Your task to perform on an android device: open app "Duolingo: language lessons" (install if not already installed) and go to login screen Image 0: 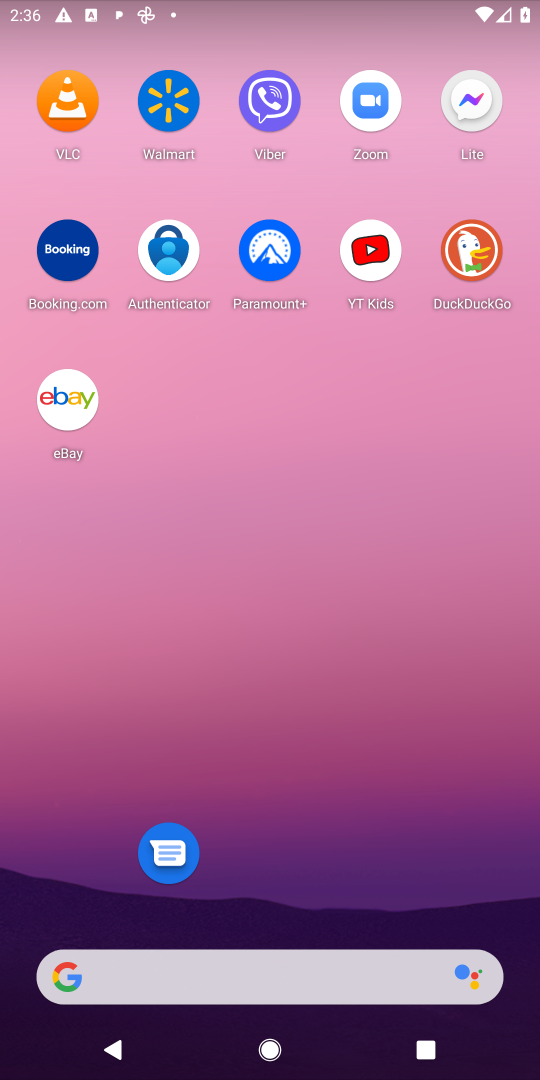
Step 0: drag from (291, 885) to (285, 213)
Your task to perform on an android device: open app "Duolingo: language lessons" (install if not already installed) and go to login screen Image 1: 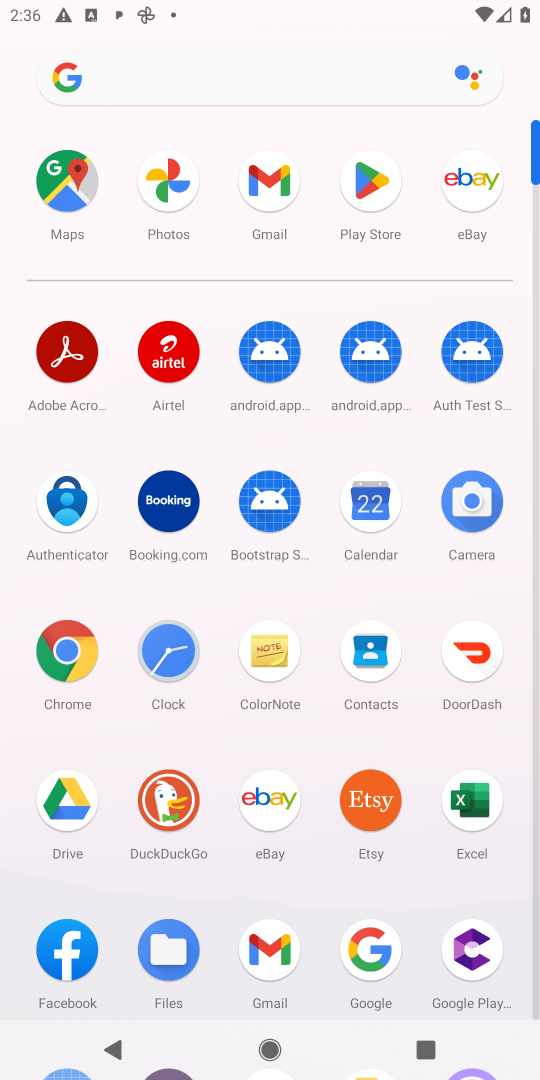
Step 1: click (364, 188)
Your task to perform on an android device: open app "Duolingo: language lessons" (install if not already installed) and go to login screen Image 2: 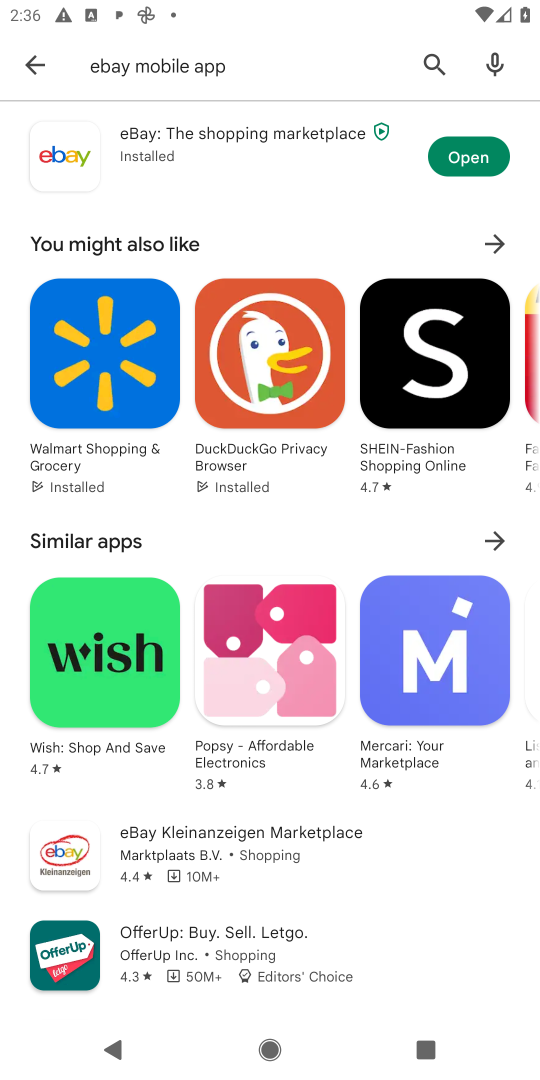
Step 2: click (48, 50)
Your task to perform on an android device: open app "Duolingo: language lessons" (install if not already installed) and go to login screen Image 3: 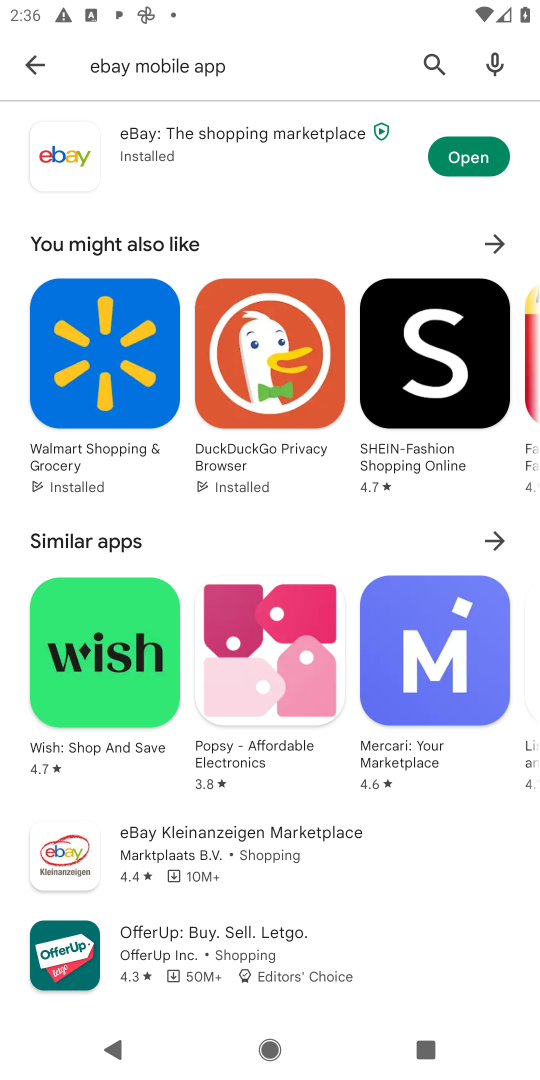
Step 3: click (12, 49)
Your task to perform on an android device: open app "Duolingo: language lessons" (install if not already installed) and go to login screen Image 4: 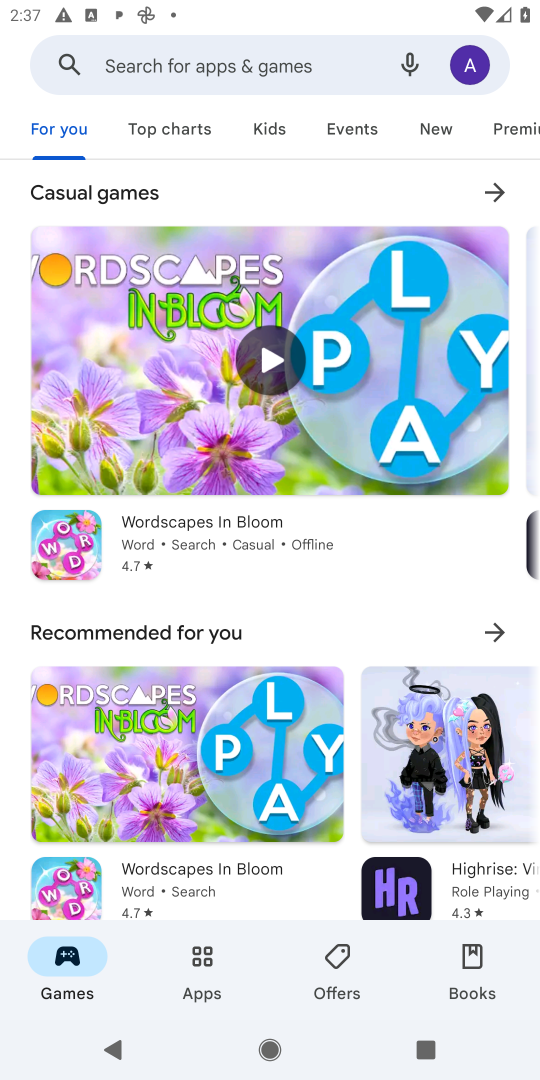
Step 4: click (208, 51)
Your task to perform on an android device: open app "Duolingo: language lessons" (install if not already installed) and go to login screen Image 5: 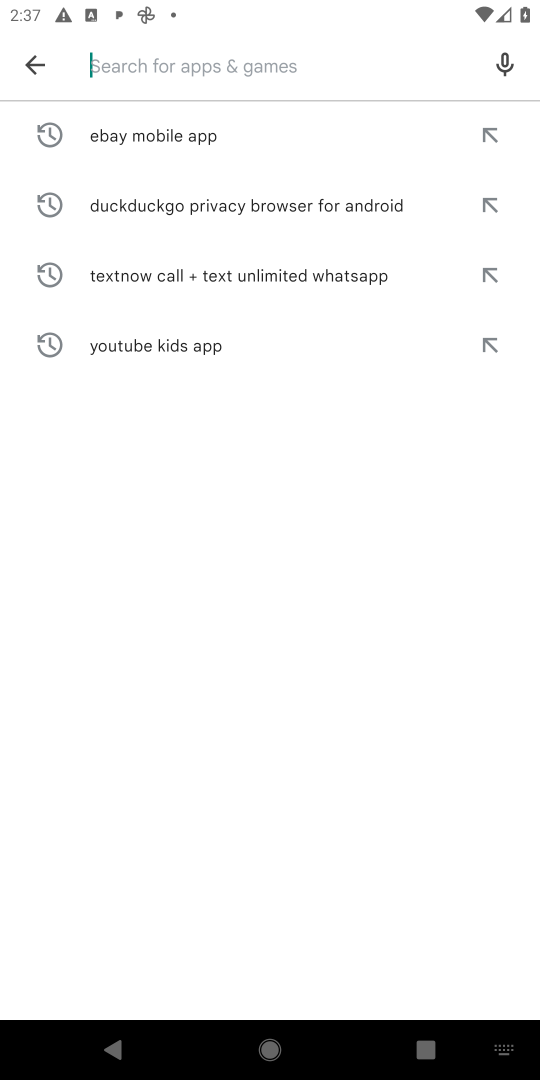
Step 5: type "Duolingo: language lessons "
Your task to perform on an android device: open app "Duolingo: language lessons" (install if not already installed) and go to login screen Image 6: 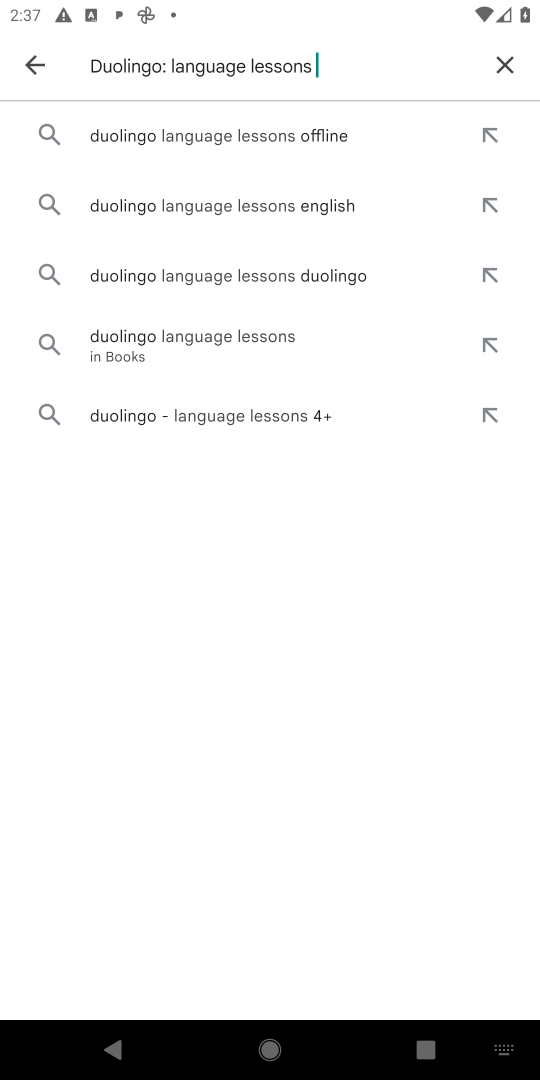
Step 6: click (262, 137)
Your task to perform on an android device: open app "Duolingo: language lessons" (install if not already installed) and go to login screen Image 7: 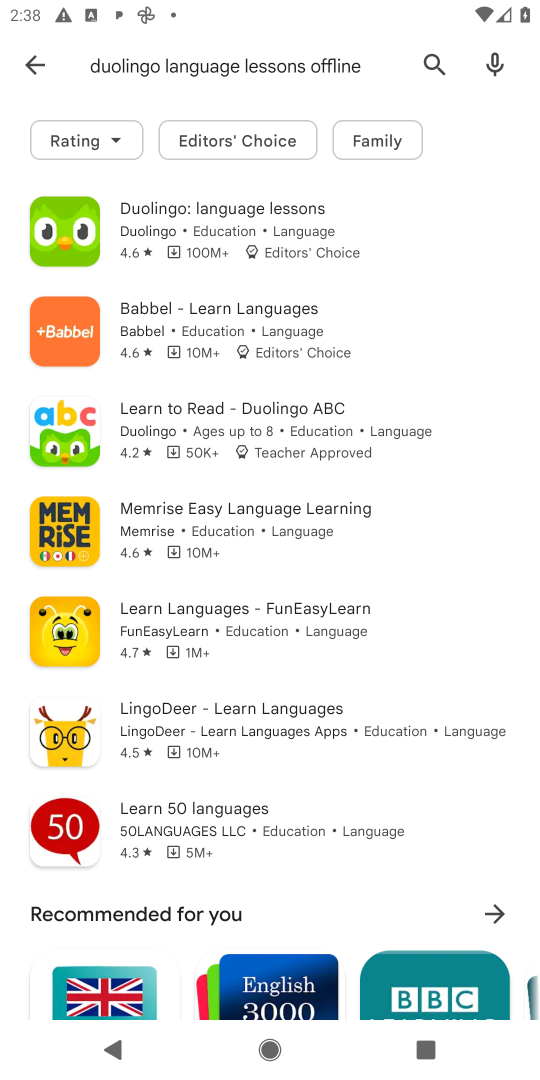
Step 7: click (194, 206)
Your task to perform on an android device: open app "Duolingo: language lessons" (install if not already installed) and go to login screen Image 8: 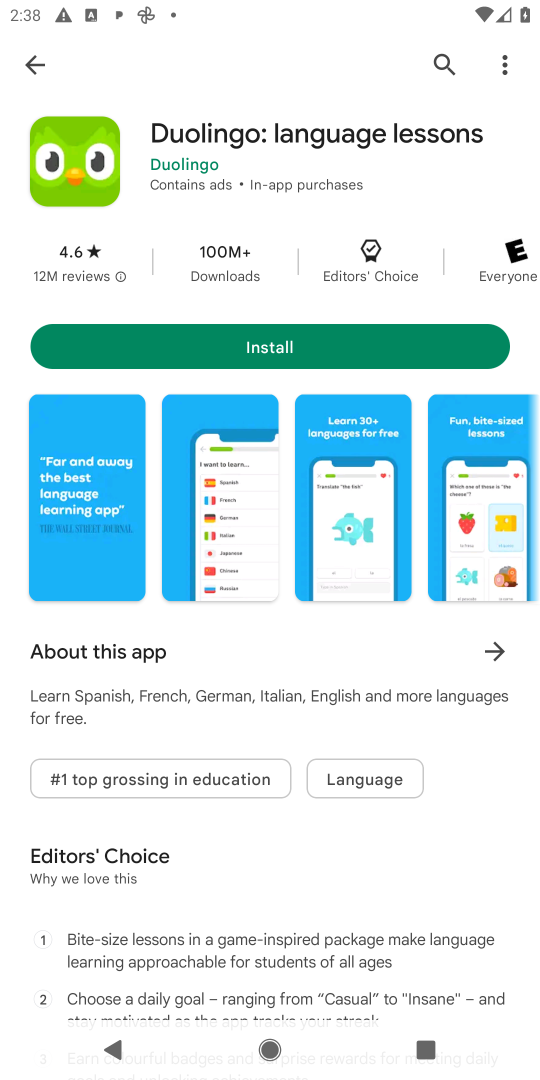
Step 8: click (215, 338)
Your task to perform on an android device: open app "Duolingo: language lessons" (install if not already installed) and go to login screen Image 9: 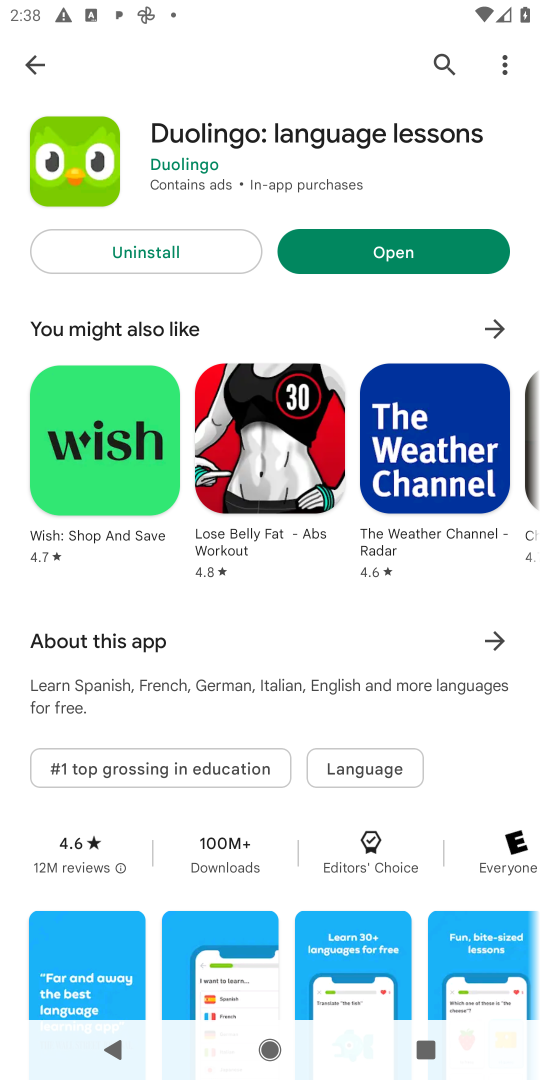
Step 9: click (399, 256)
Your task to perform on an android device: open app "Duolingo: language lessons" (install if not already installed) and go to login screen Image 10: 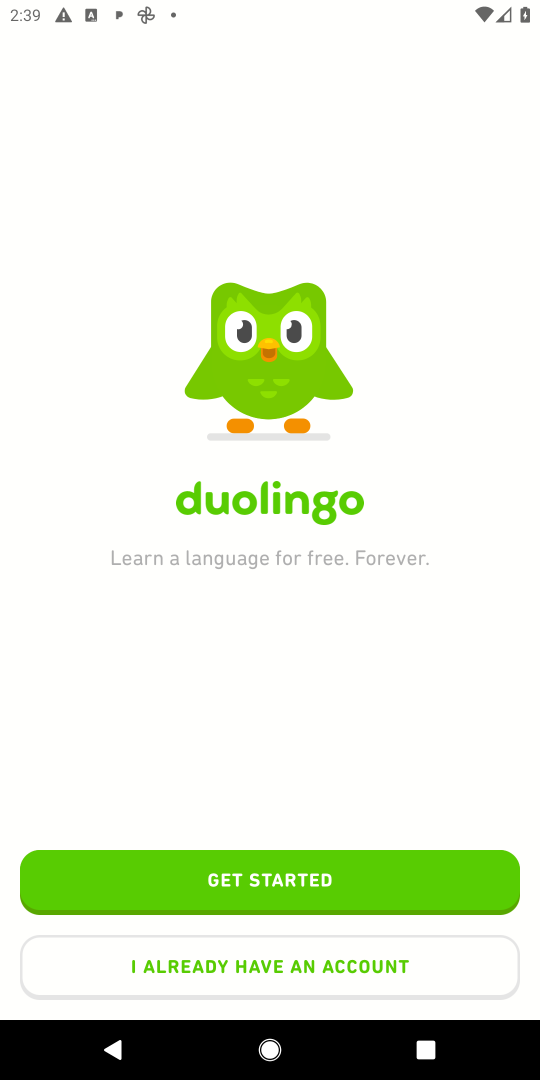
Step 10: task complete